Your task to perform on an android device: What's the weather? Image 0: 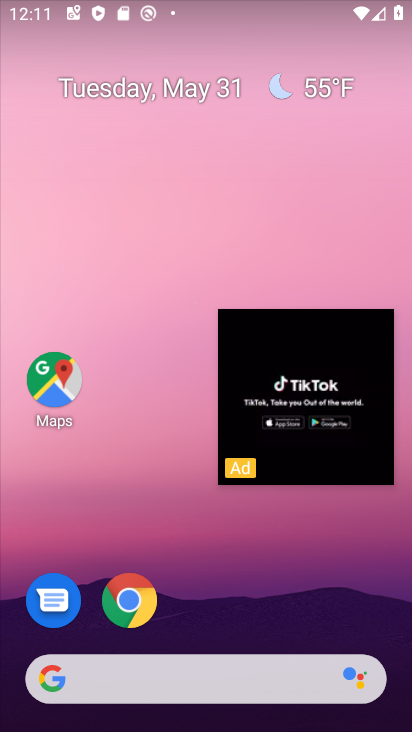
Step 0: drag from (333, 392) to (399, 730)
Your task to perform on an android device: What's the weather? Image 1: 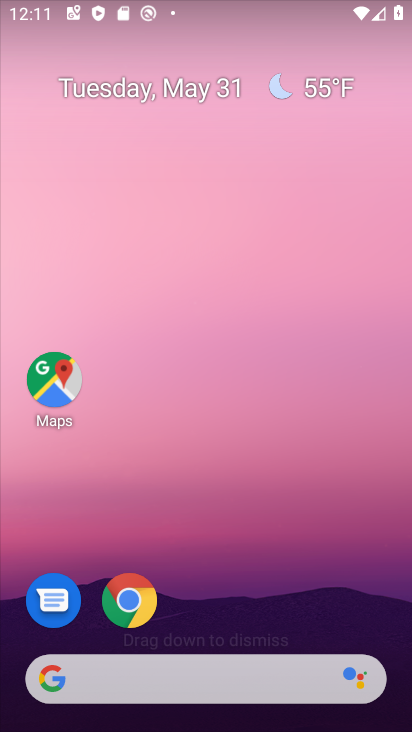
Step 1: drag from (214, 692) to (386, 714)
Your task to perform on an android device: What's the weather? Image 2: 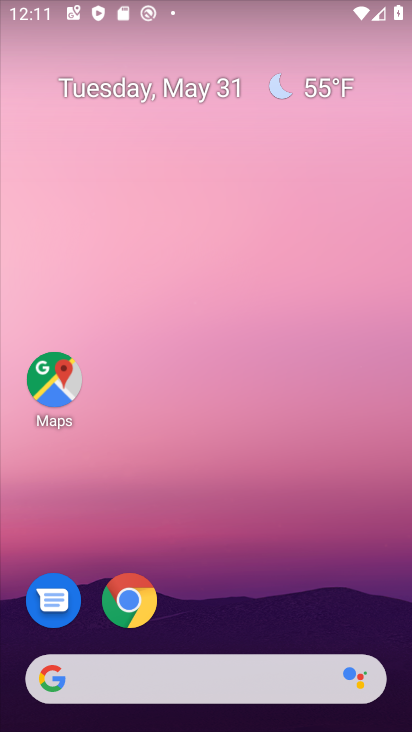
Step 2: press home button
Your task to perform on an android device: What's the weather? Image 3: 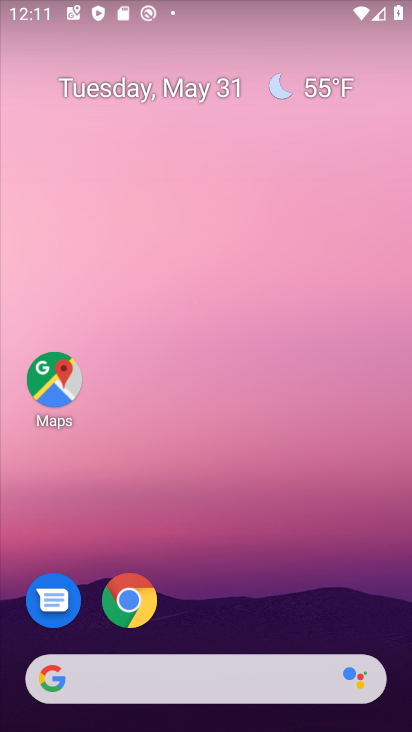
Step 3: click (245, 671)
Your task to perform on an android device: What's the weather? Image 4: 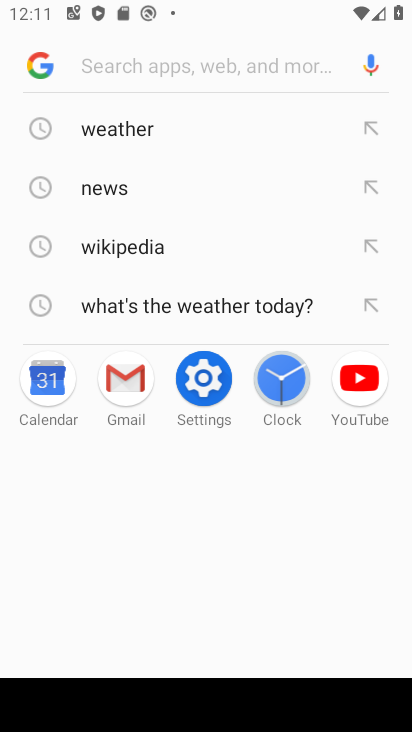
Step 4: click (138, 126)
Your task to perform on an android device: What's the weather? Image 5: 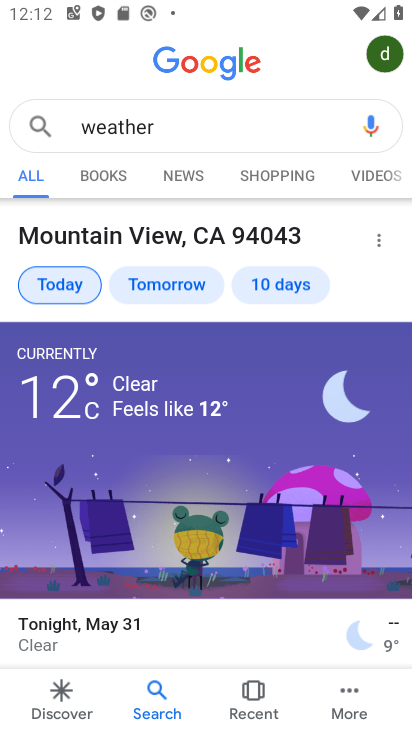
Step 5: task complete